Your task to perform on an android device: Open calendar and show me the fourth week of next month Image 0: 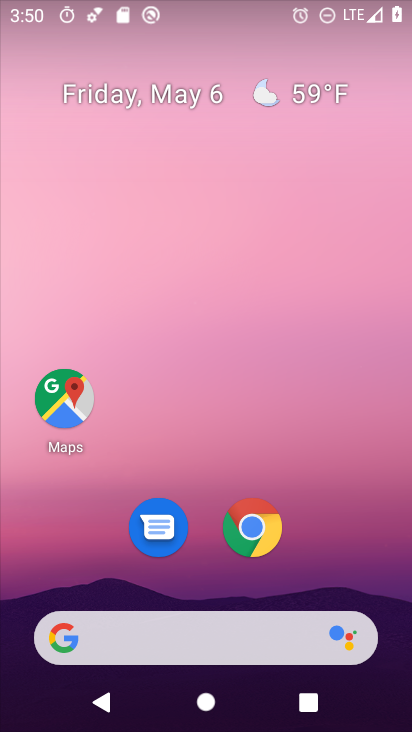
Step 0: drag from (274, 441) to (218, 1)
Your task to perform on an android device: Open calendar and show me the fourth week of next month Image 1: 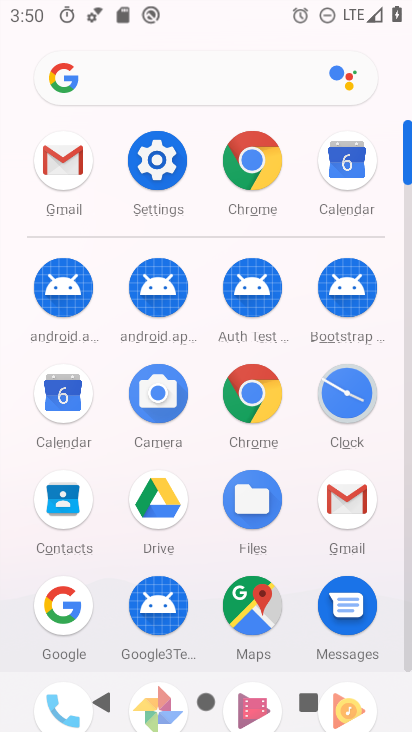
Step 1: click (65, 406)
Your task to perform on an android device: Open calendar and show me the fourth week of next month Image 2: 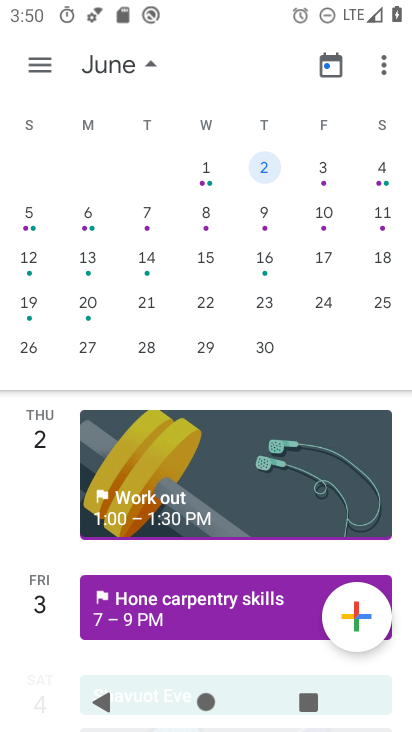
Step 2: click (145, 336)
Your task to perform on an android device: Open calendar and show me the fourth week of next month Image 3: 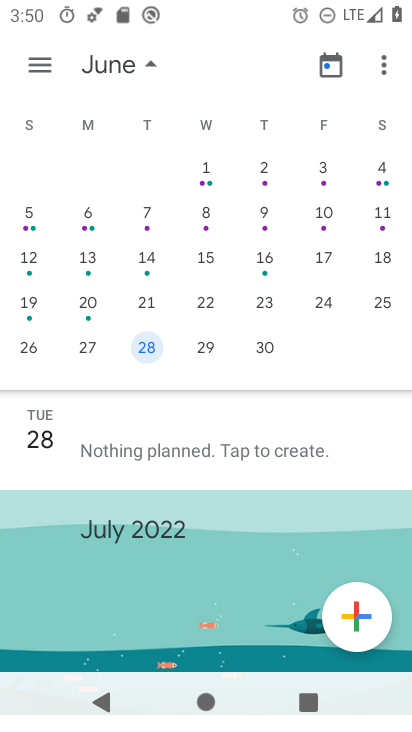
Step 3: task complete